Your task to perform on an android device: Open display settings Image 0: 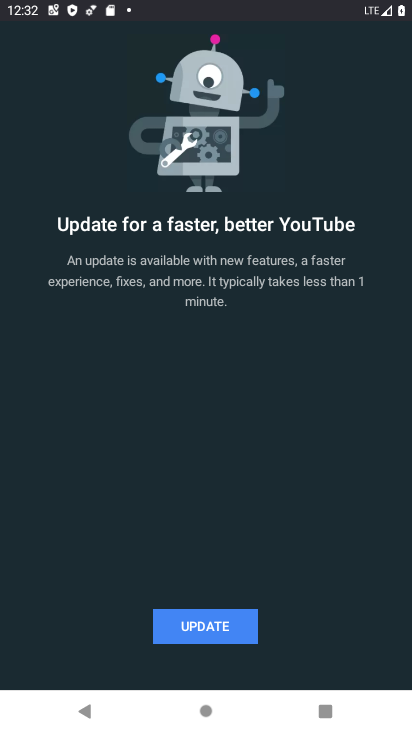
Step 0: press back button
Your task to perform on an android device: Open display settings Image 1: 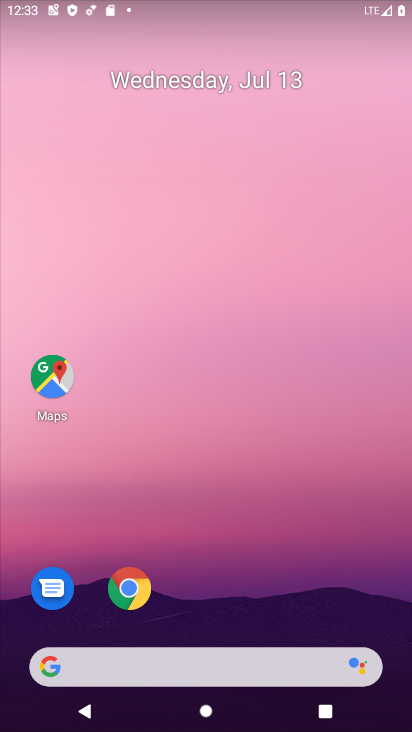
Step 1: drag from (398, 704) to (360, 114)
Your task to perform on an android device: Open display settings Image 2: 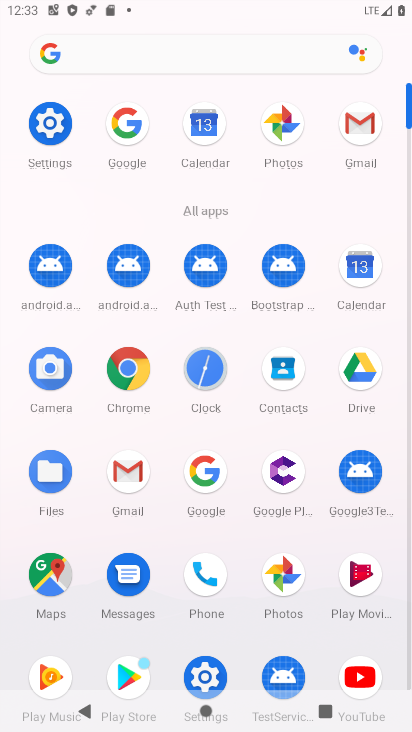
Step 2: click (55, 135)
Your task to perform on an android device: Open display settings Image 3: 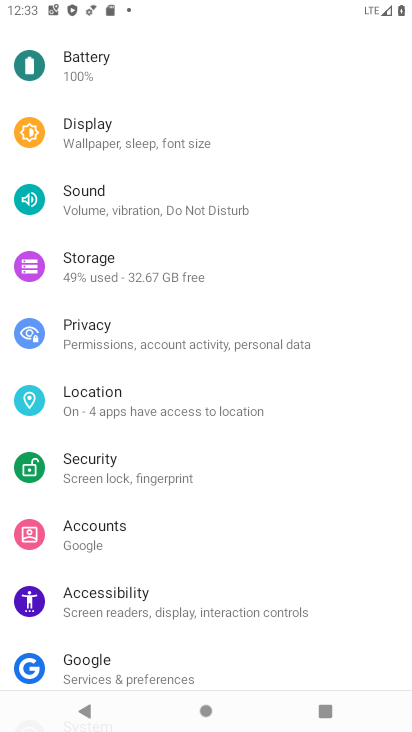
Step 3: click (102, 136)
Your task to perform on an android device: Open display settings Image 4: 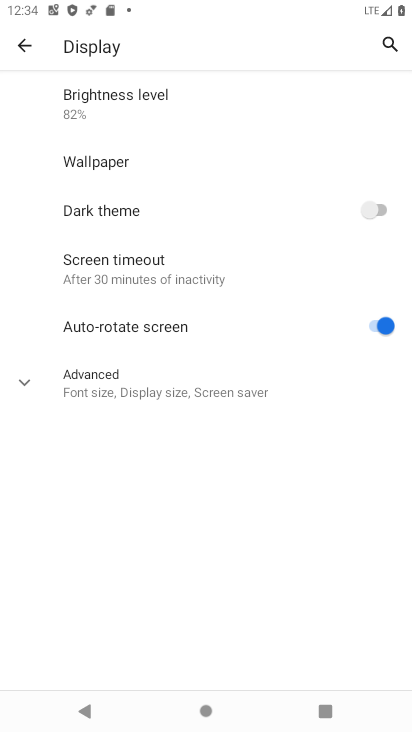
Step 4: task complete